Your task to perform on an android device: Go to Amazon Image 0: 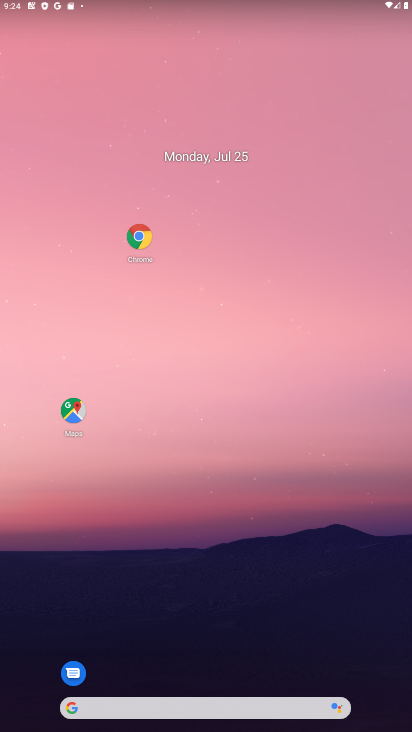
Step 0: click (125, 242)
Your task to perform on an android device: Go to Amazon Image 1: 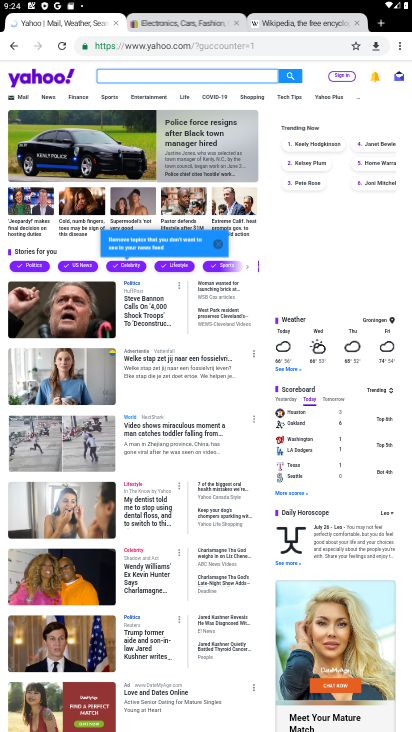
Step 1: task complete